Your task to perform on an android device: Open Youtube and go to "Your channel" Image 0: 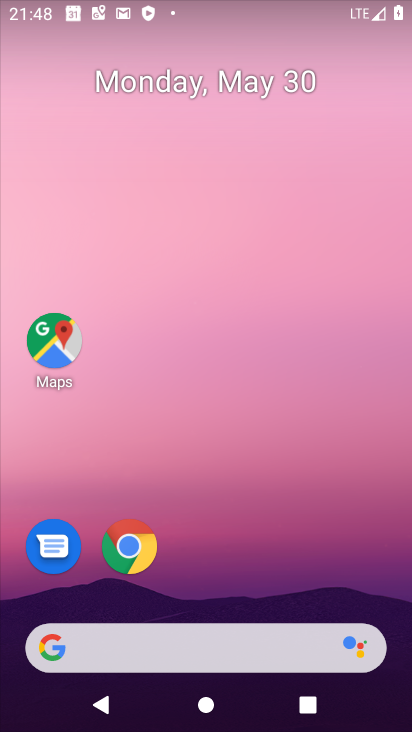
Step 0: drag from (305, 531) to (306, 208)
Your task to perform on an android device: Open Youtube and go to "Your channel" Image 1: 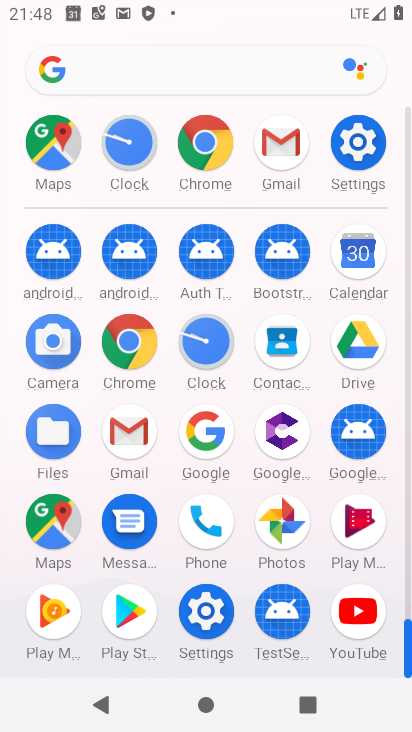
Step 1: click (358, 638)
Your task to perform on an android device: Open Youtube and go to "Your channel" Image 2: 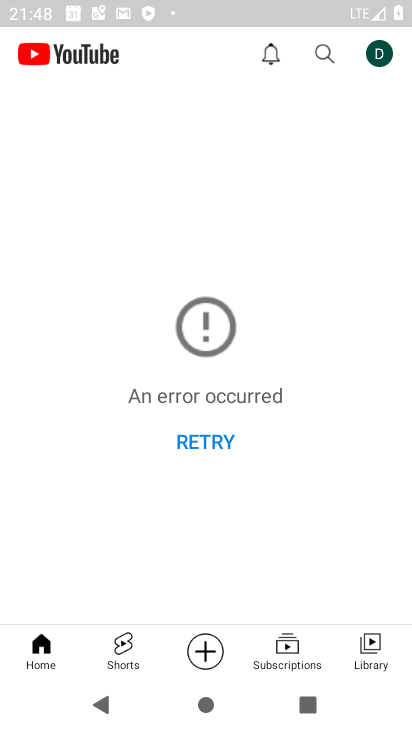
Step 2: click (367, 61)
Your task to perform on an android device: Open Youtube and go to "Your channel" Image 3: 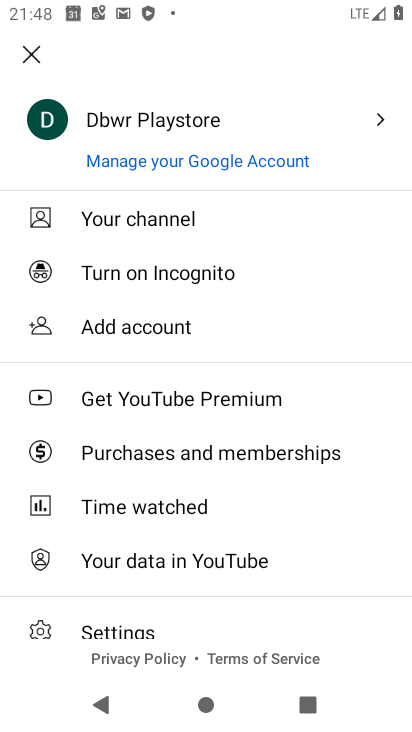
Step 3: click (238, 204)
Your task to perform on an android device: Open Youtube and go to "Your channel" Image 4: 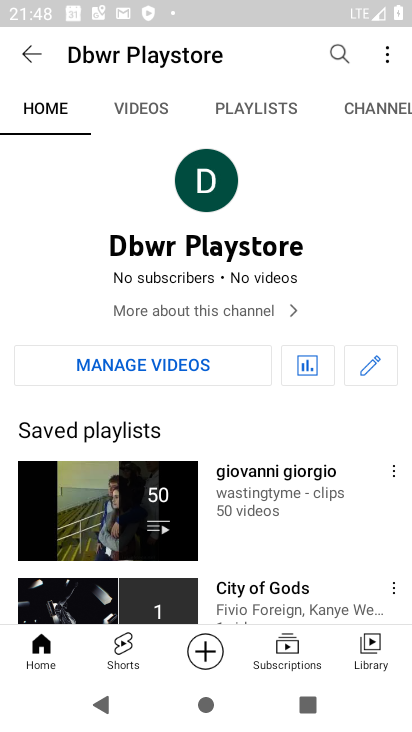
Step 4: task complete